Your task to perform on an android device: Open calendar and show me the third week of next month Image 0: 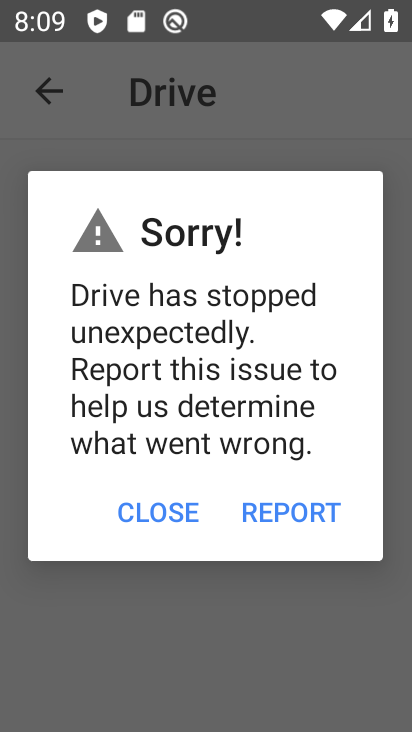
Step 0: press home button
Your task to perform on an android device: Open calendar and show me the third week of next month Image 1: 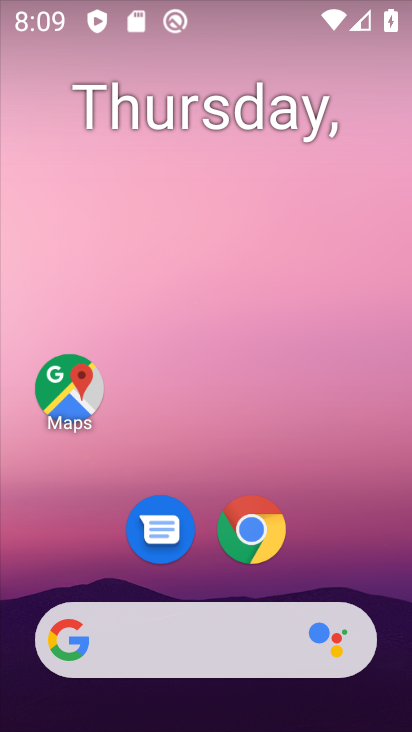
Step 1: press home button
Your task to perform on an android device: Open calendar and show me the third week of next month Image 2: 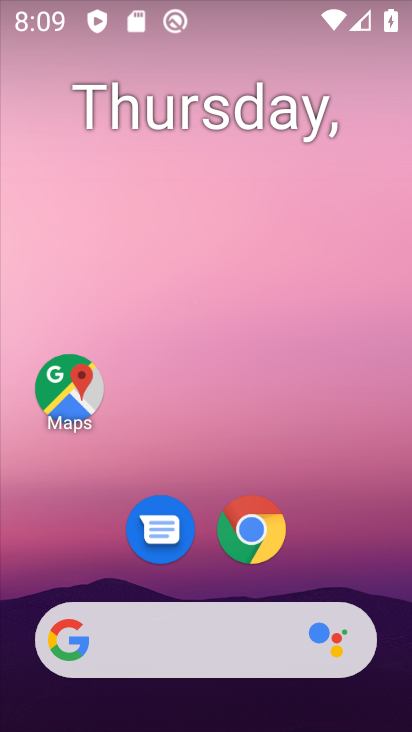
Step 2: drag from (155, 640) to (284, 59)
Your task to perform on an android device: Open calendar and show me the third week of next month Image 3: 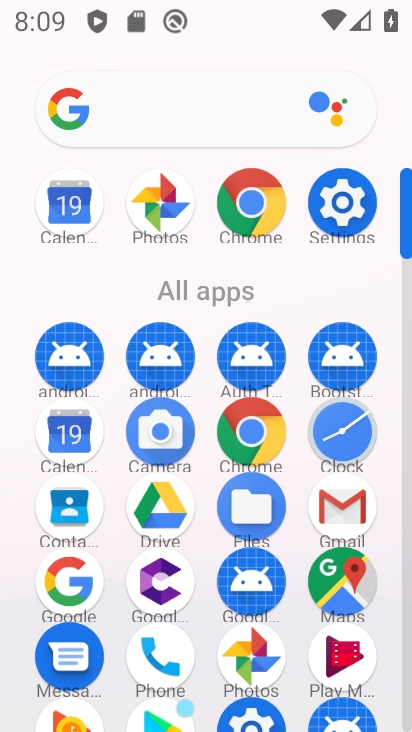
Step 3: click (66, 209)
Your task to perform on an android device: Open calendar and show me the third week of next month Image 4: 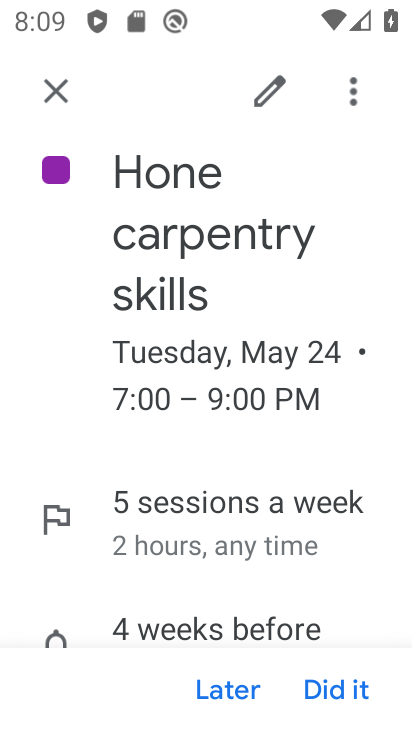
Step 4: click (51, 92)
Your task to perform on an android device: Open calendar and show me the third week of next month Image 5: 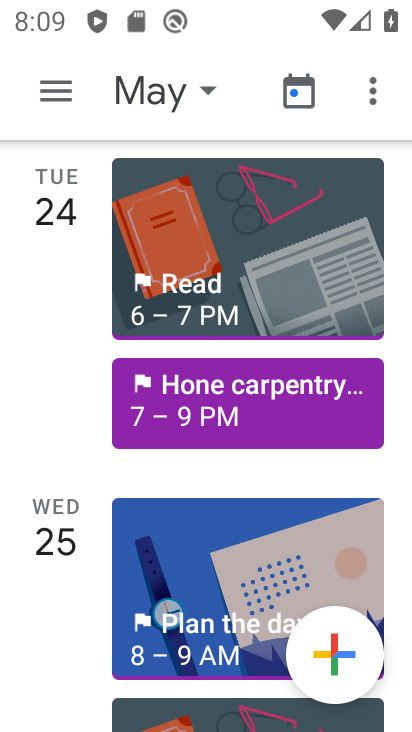
Step 5: click (122, 88)
Your task to perform on an android device: Open calendar and show me the third week of next month Image 6: 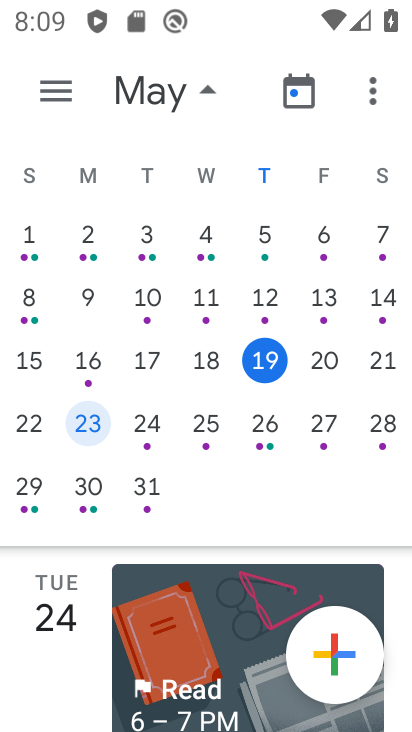
Step 6: drag from (376, 319) to (20, 344)
Your task to perform on an android device: Open calendar and show me the third week of next month Image 7: 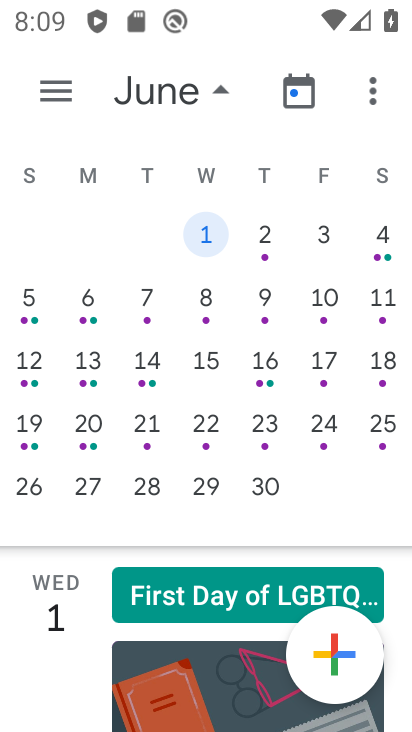
Step 7: click (32, 359)
Your task to perform on an android device: Open calendar and show me the third week of next month Image 8: 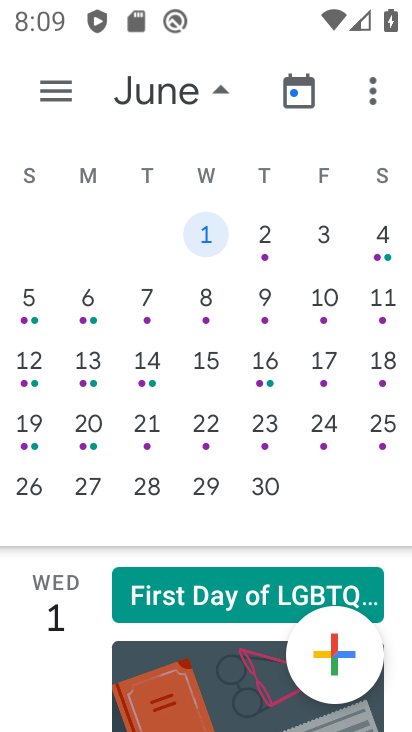
Step 8: click (34, 369)
Your task to perform on an android device: Open calendar and show me the third week of next month Image 9: 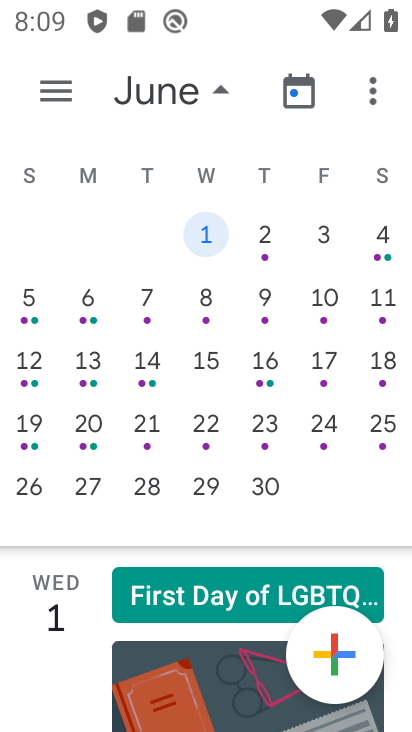
Step 9: click (45, 358)
Your task to perform on an android device: Open calendar and show me the third week of next month Image 10: 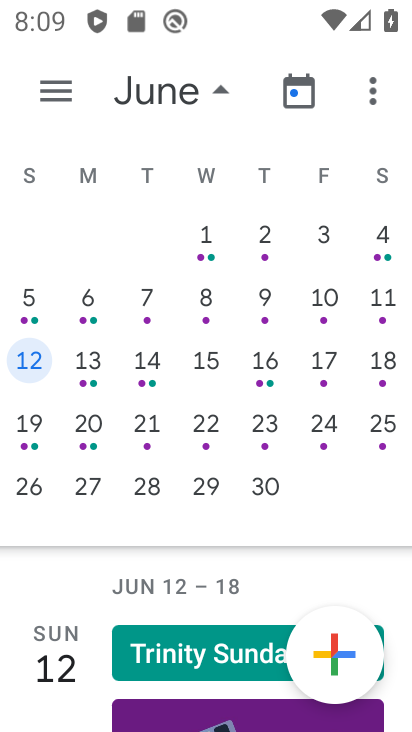
Step 10: click (59, 92)
Your task to perform on an android device: Open calendar and show me the third week of next month Image 11: 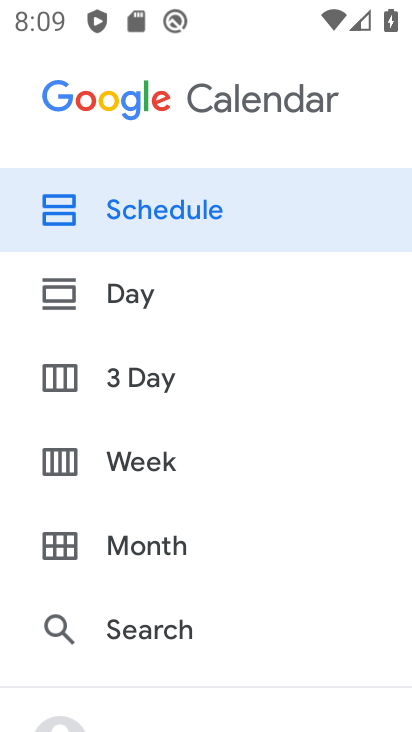
Step 11: click (133, 459)
Your task to perform on an android device: Open calendar and show me the third week of next month Image 12: 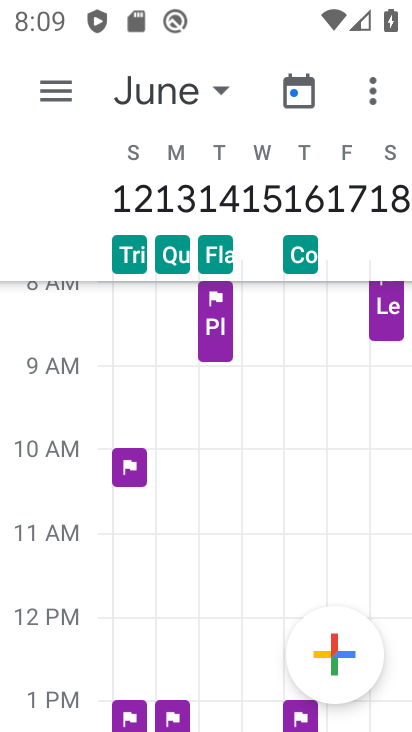
Step 12: task complete